Your task to perform on an android device: Check the weather Image 0: 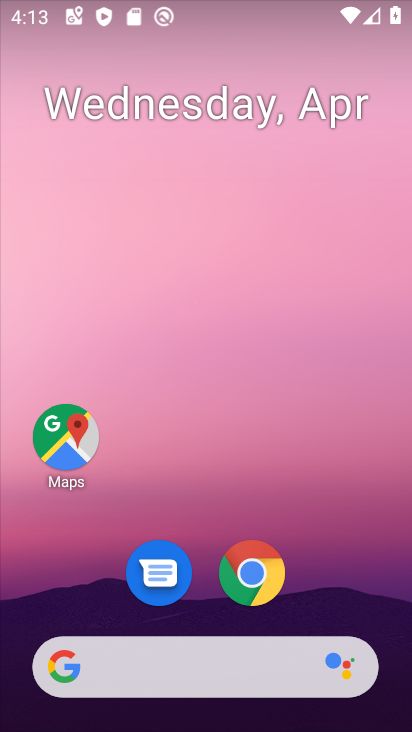
Step 0: drag from (68, 173) to (411, 235)
Your task to perform on an android device: Check the weather Image 1: 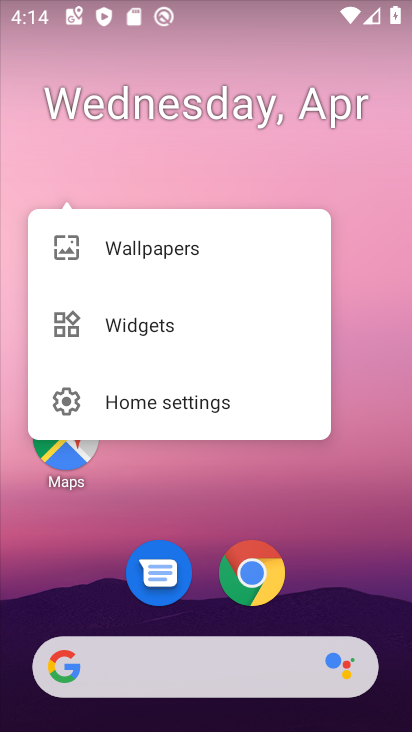
Step 1: drag from (165, 164) to (390, 184)
Your task to perform on an android device: Check the weather Image 2: 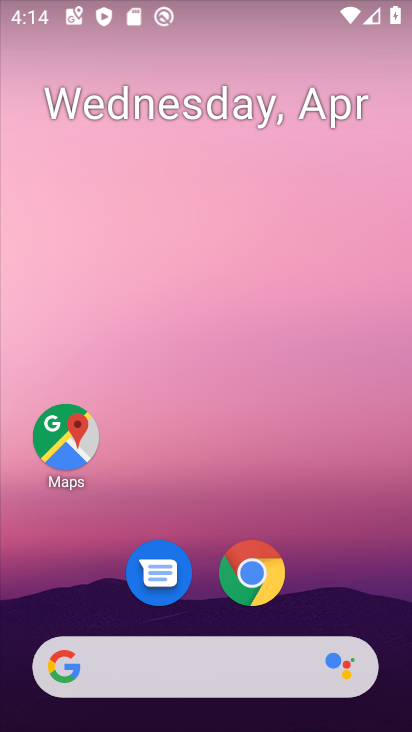
Step 2: drag from (60, 167) to (404, 214)
Your task to perform on an android device: Check the weather Image 3: 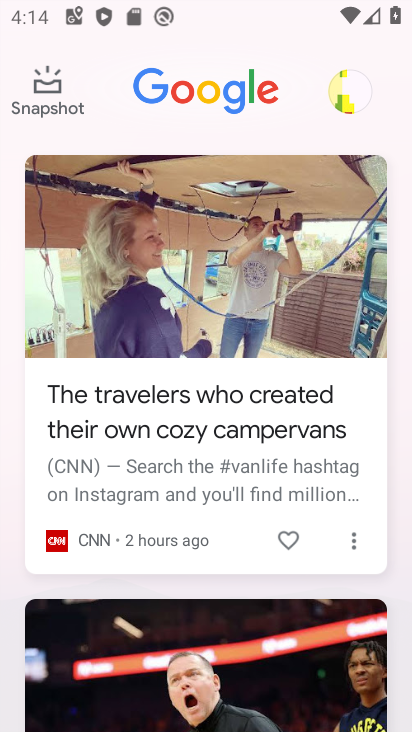
Step 3: drag from (207, 324) to (209, 576)
Your task to perform on an android device: Check the weather Image 4: 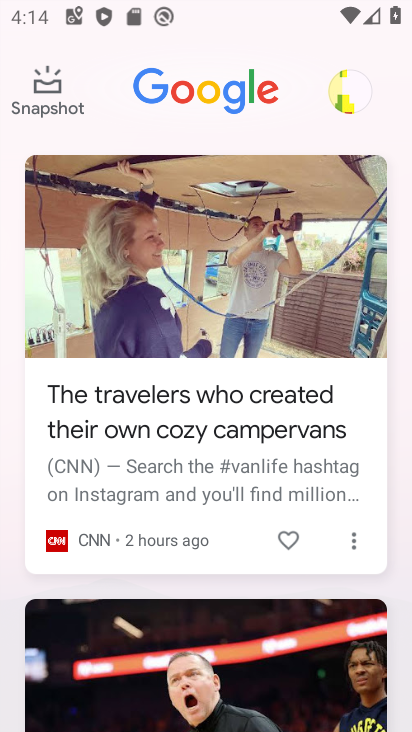
Step 4: click (125, 82)
Your task to perform on an android device: Check the weather Image 5: 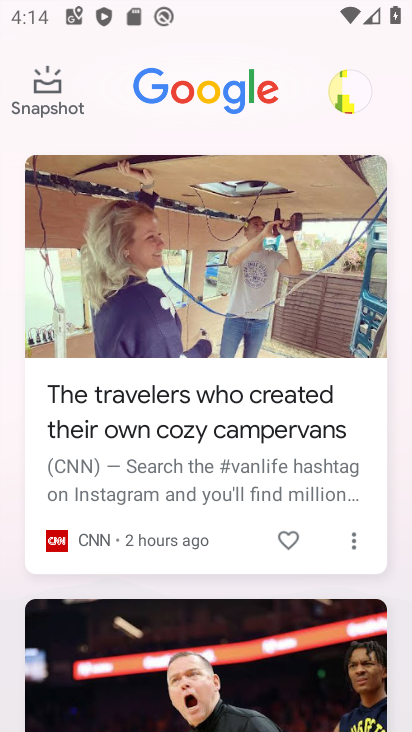
Step 5: click (144, 88)
Your task to perform on an android device: Check the weather Image 6: 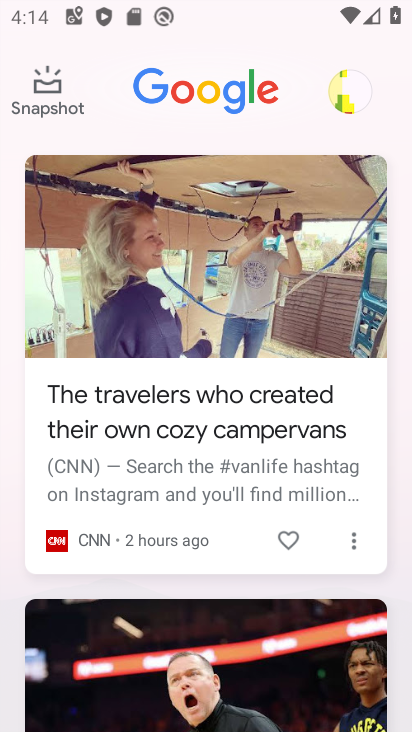
Step 6: drag from (215, 274) to (221, 585)
Your task to perform on an android device: Check the weather Image 7: 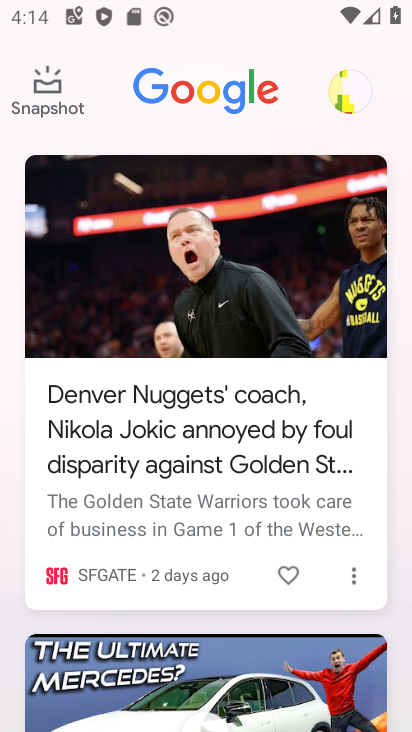
Step 7: click (136, 80)
Your task to perform on an android device: Check the weather Image 8: 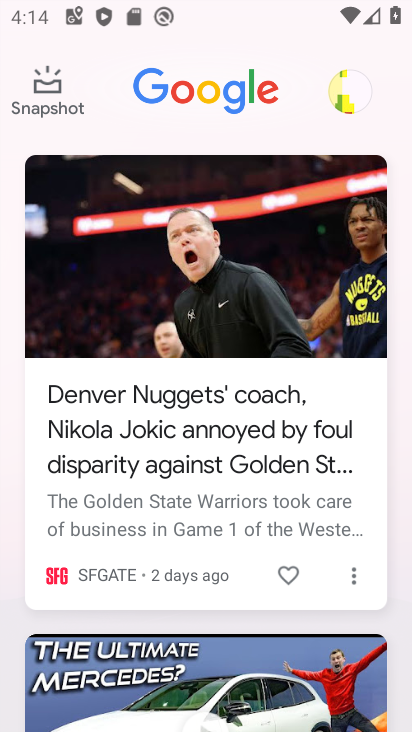
Step 8: press back button
Your task to perform on an android device: Check the weather Image 9: 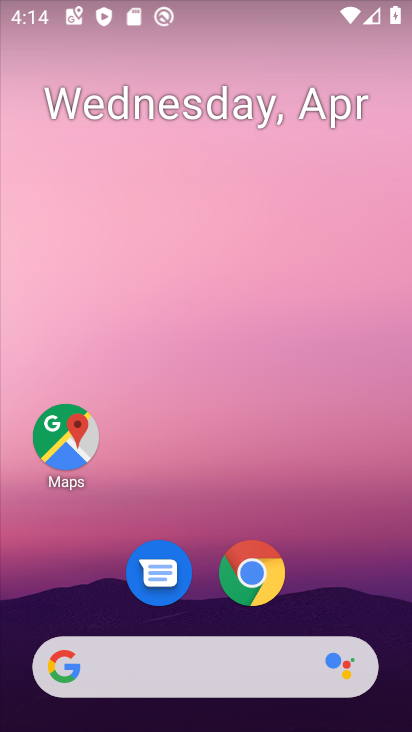
Step 9: click (194, 665)
Your task to perform on an android device: Check the weather Image 10: 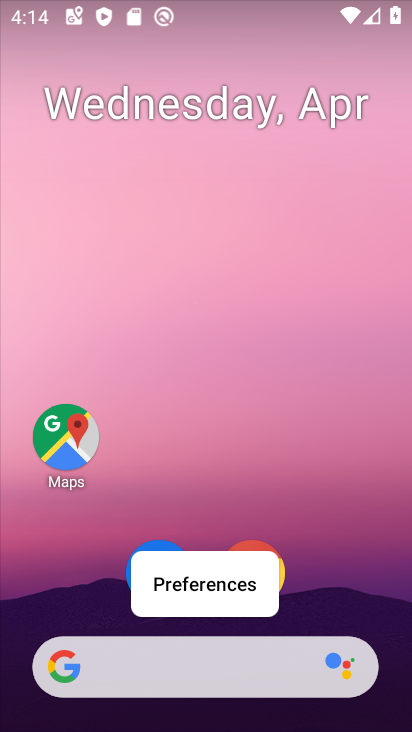
Step 10: click (128, 671)
Your task to perform on an android device: Check the weather Image 11: 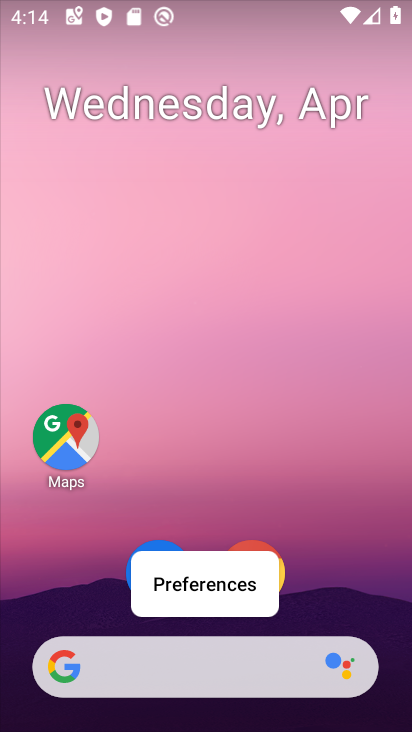
Step 11: click (280, 560)
Your task to perform on an android device: Check the weather Image 12: 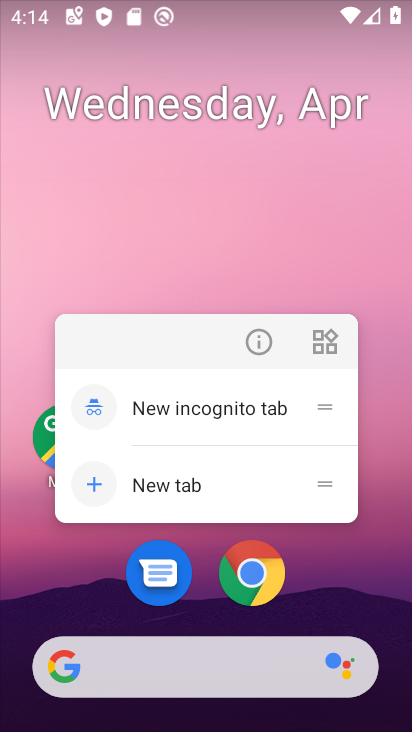
Step 12: click (263, 590)
Your task to perform on an android device: Check the weather Image 13: 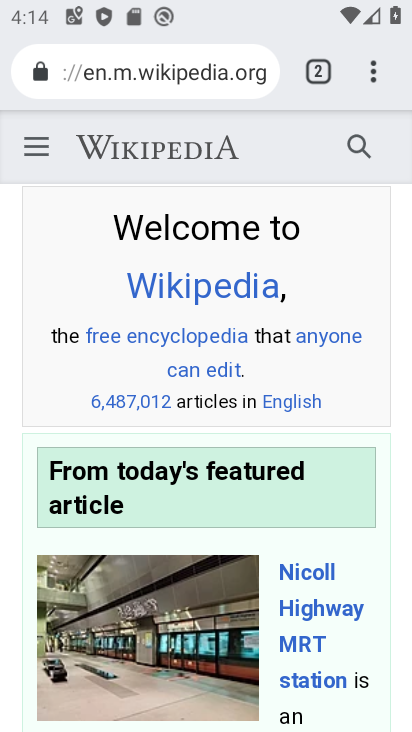
Step 13: click (135, 75)
Your task to perform on an android device: Check the weather Image 14: 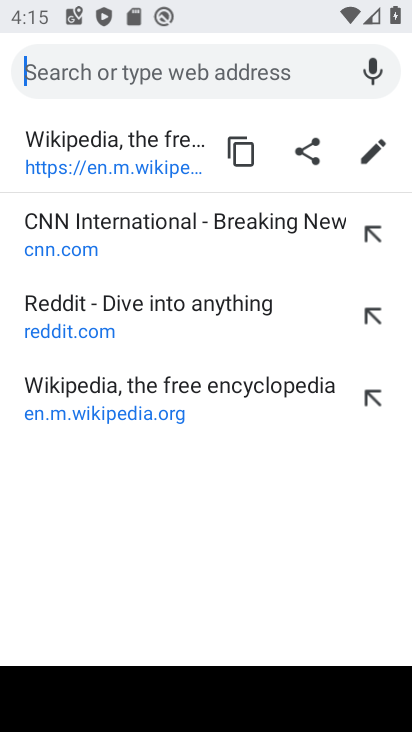
Step 14: type "weather"
Your task to perform on an android device: Check the weather Image 15: 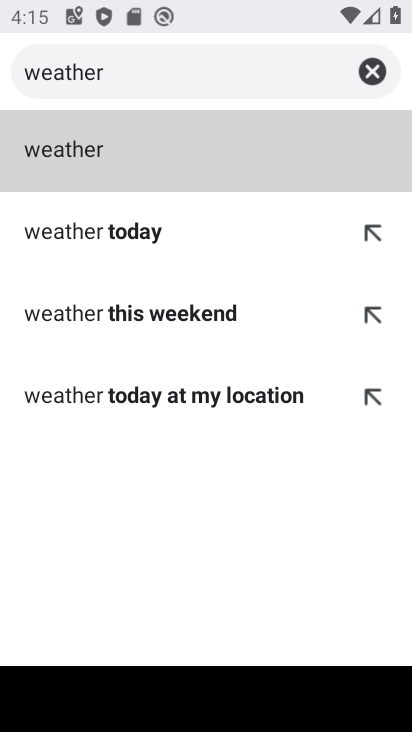
Step 15: click (65, 150)
Your task to perform on an android device: Check the weather Image 16: 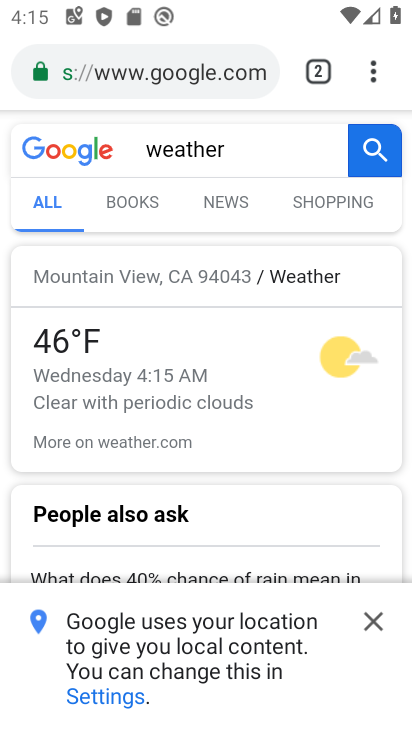
Step 16: task complete